Your task to perform on an android device: Go to location settings Image 0: 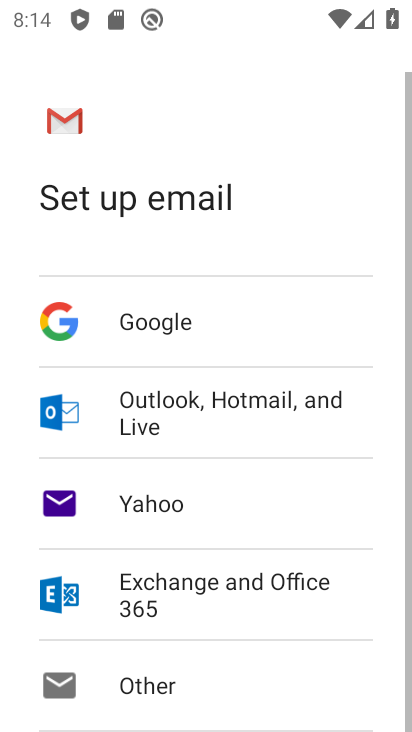
Step 0: press home button
Your task to perform on an android device: Go to location settings Image 1: 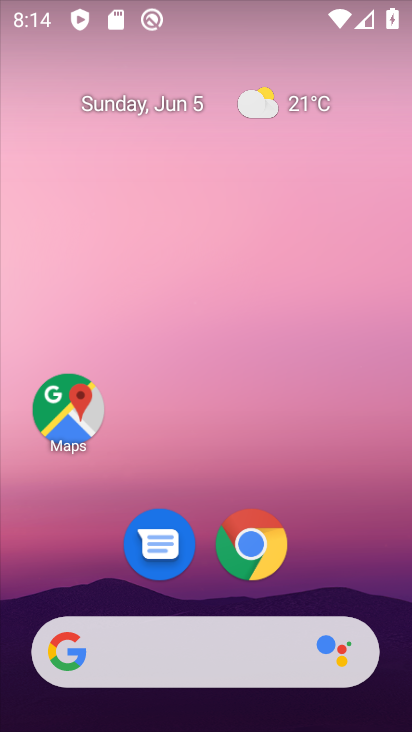
Step 1: drag from (389, 701) to (274, 55)
Your task to perform on an android device: Go to location settings Image 2: 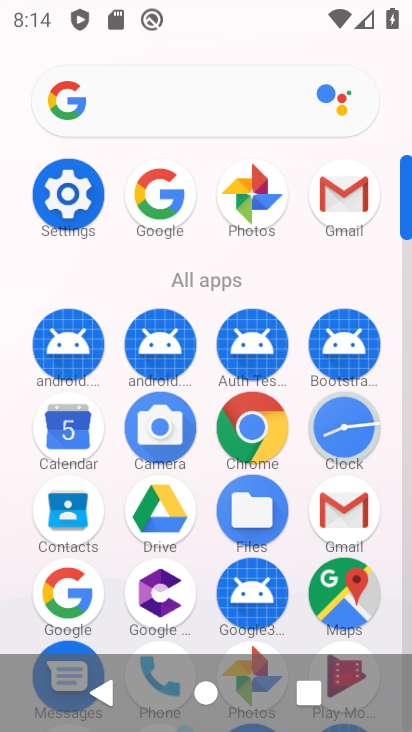
Step 2: click (77, 181)
Your task to perform on an android device: Go to location settings Image 3: 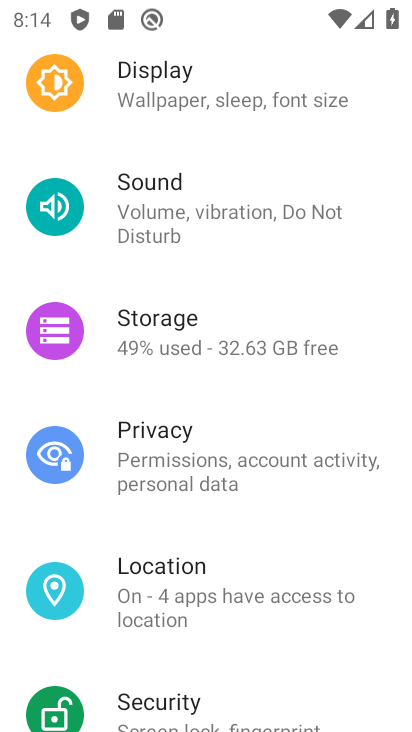
Step 3: click (194, 596)
Your task to perform on an android device: Go to location settings Image 4: 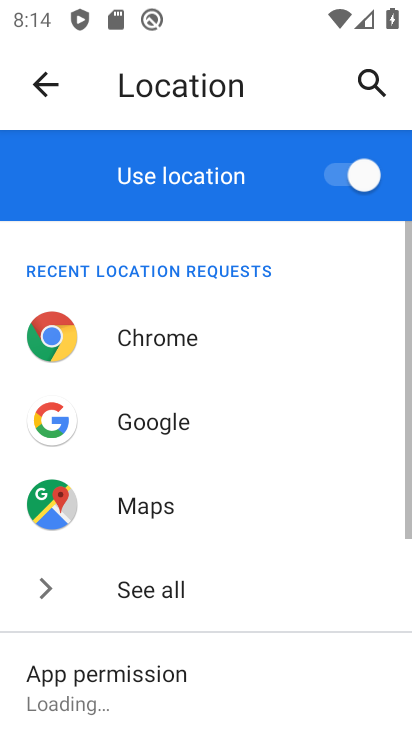
Step 4: drag from (295, 682) to (267, 190)
Your task to perform on an android device: Go to location settings Image 5: 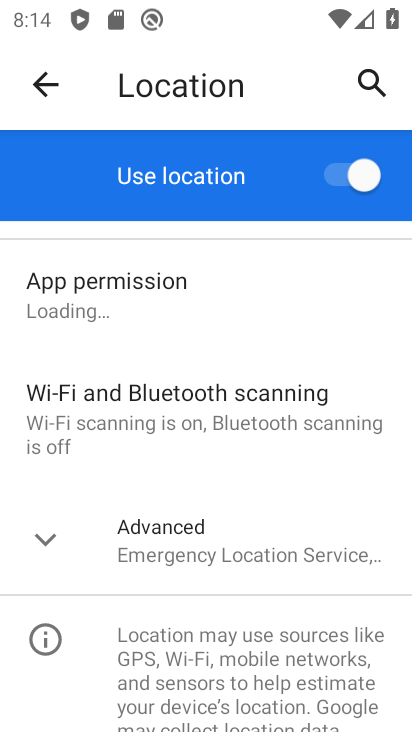
Step 5: click (57, 534)
Your task to perform on an android device: Go to location settings Image 6: 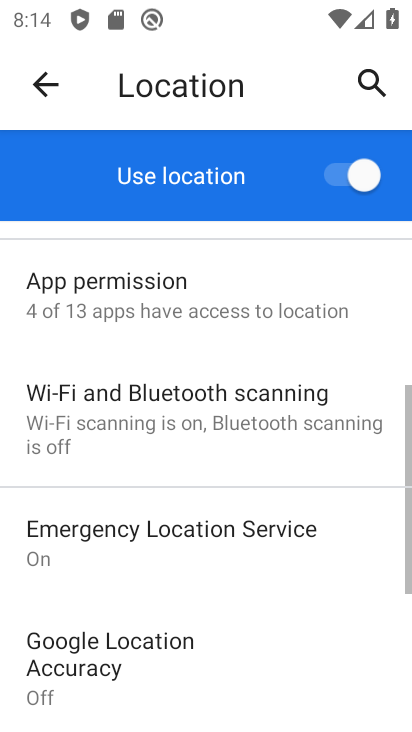
Step 6: task complete